Your task to perform on an android device: Open internet settings Image 0: 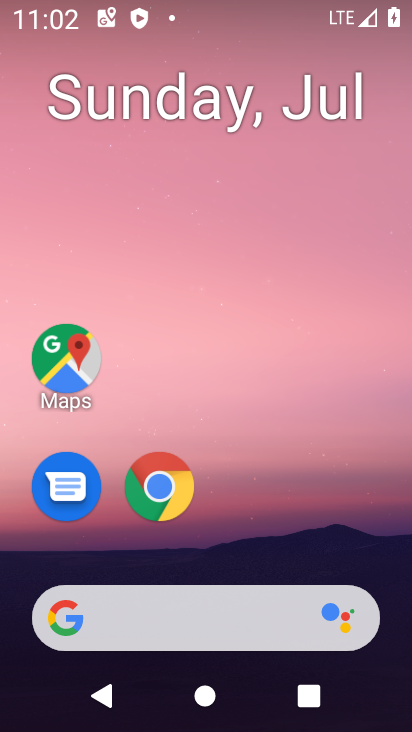
Step 0: drag from (378, 515) to (363, 94)
Your task to perform on an android device: Open internet settings Image 1: 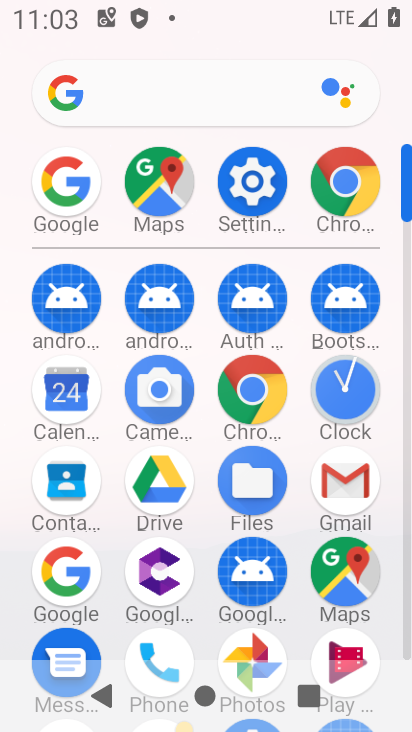
Step 1: click (256, 197)
Your task to perform on an android device: Open internet settings Image 2: 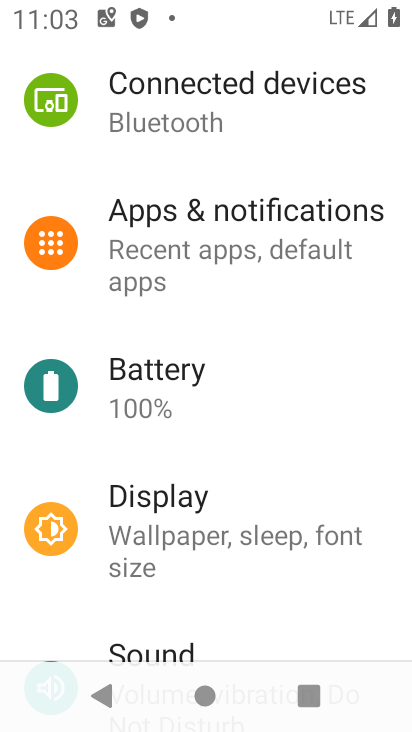
Step 2: drag from (309, 296) to (315, 439)
Your task to perform on an android device: Open internet settings Image 3: 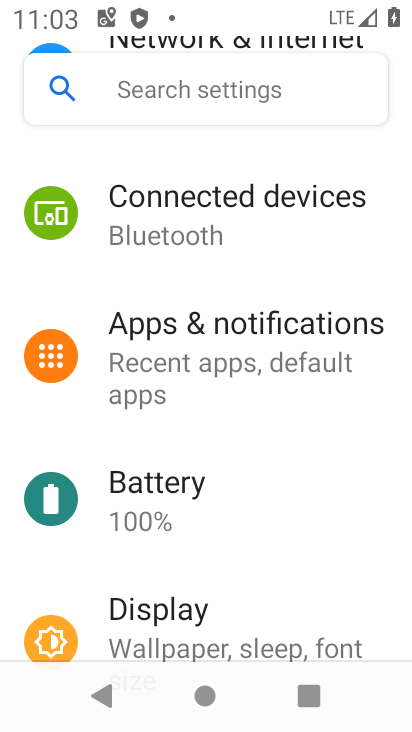
Step 3: drag from (364, 236) to (366, 423)
Your task to perform on an android device: Open internet settings Image 4: 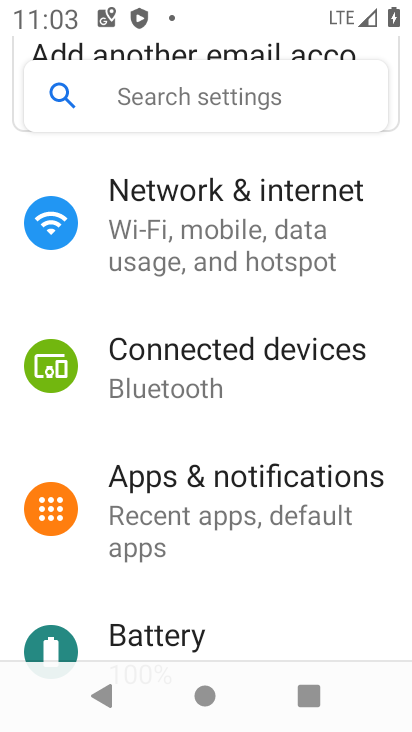
Step 4: drag from (374, 208) to (368, 436)
Your task to perform on an android device: Open internet settings Image 5: 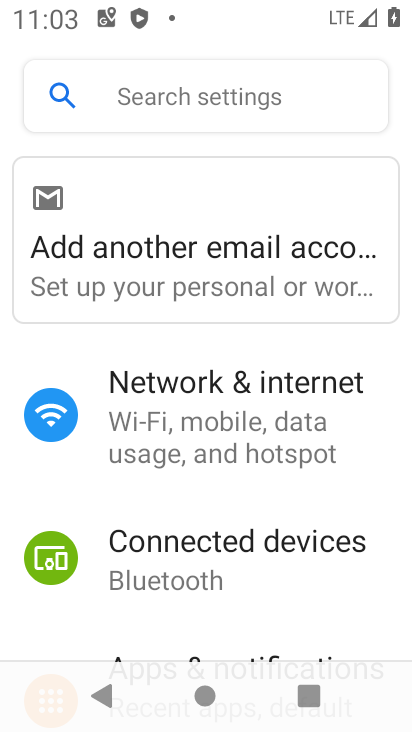
Step 5: click (250, 433)
Your task to perform on an android device: Open internet settings Image 6: 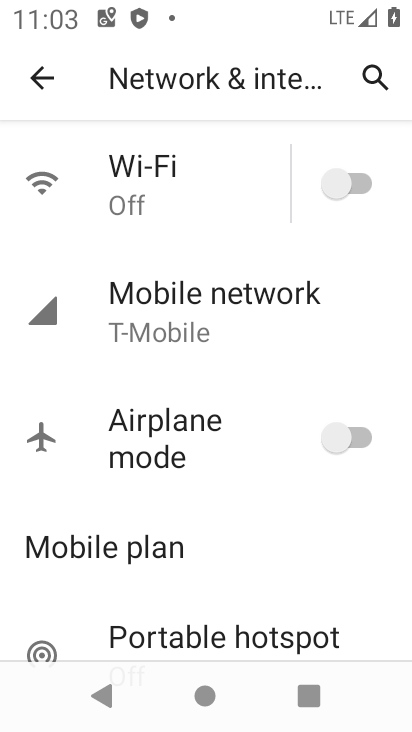
Step 6: task complete